Your task to perform on an android device: Go to ESPN.com Image 0: 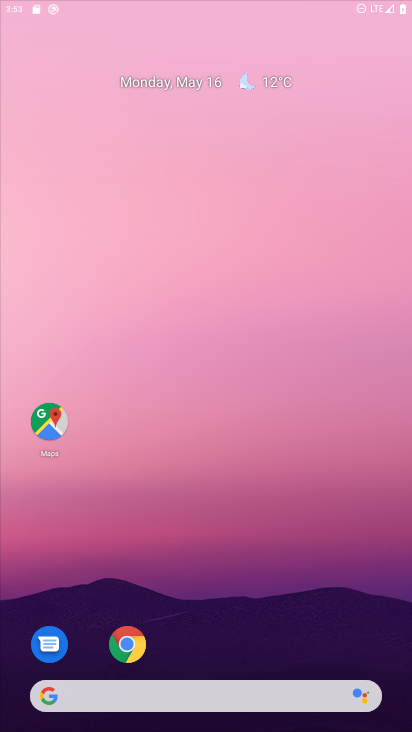
Step 0: drag from (261, 603) to (165, 26)
Your task to perform on an android device: Go to ESPN.com Image 1: 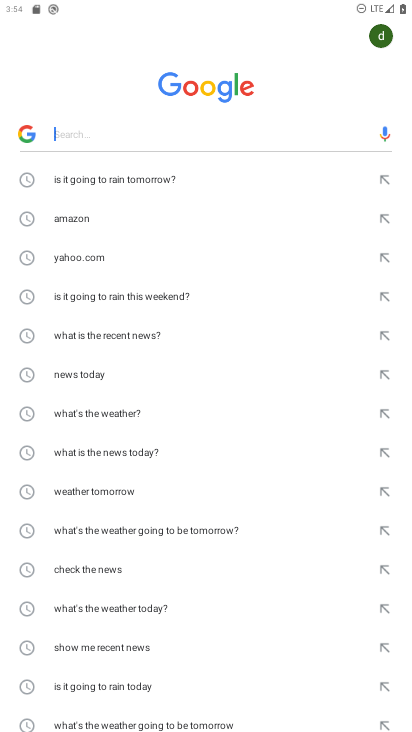
Step 1: press home button
Your task to perform on an android device: Go to ESPN.com Image 2: 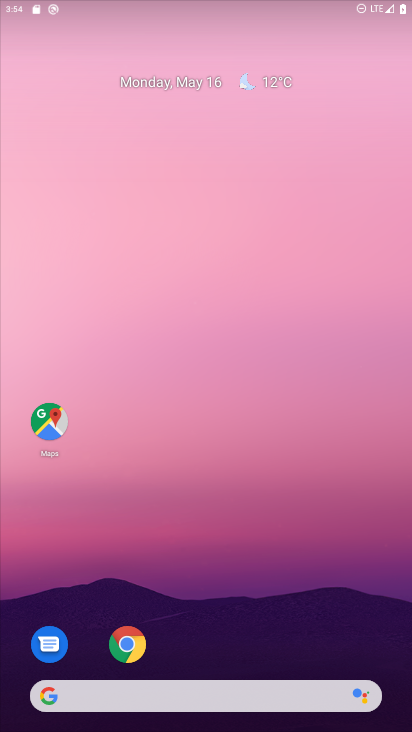
Step 2: drag from (255, 571) to (160, 43)
Your task to perform on an android device: Go to ESPN.com Image 3: 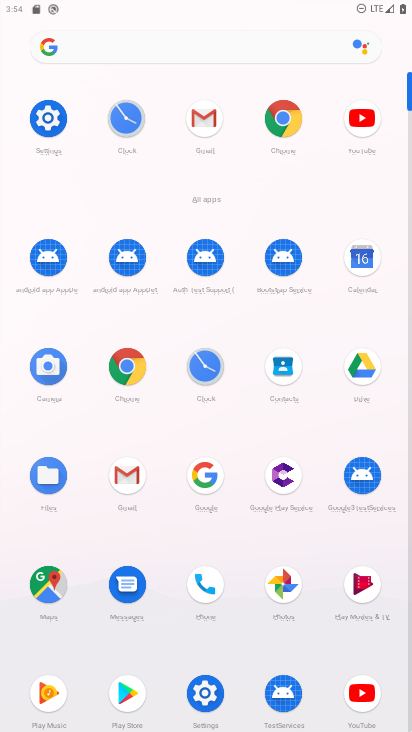
Step 3: click (128, 365)
Your task to perform on an android device: Go to ESPN.com Image 4: 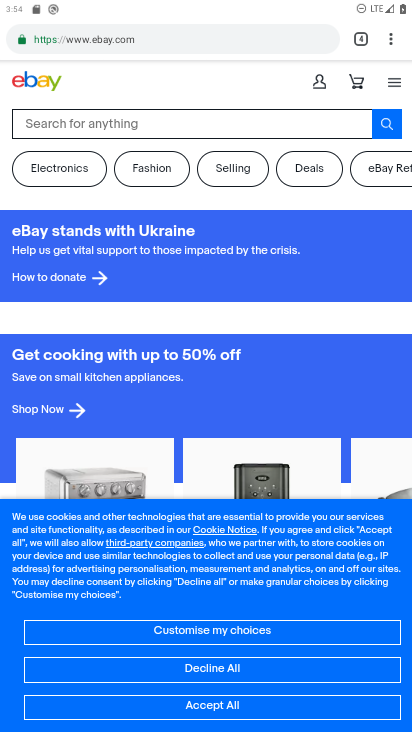
Step 4: click (359, 35)
Your task to perform on an android device: Go to ESPN.com Image 5: 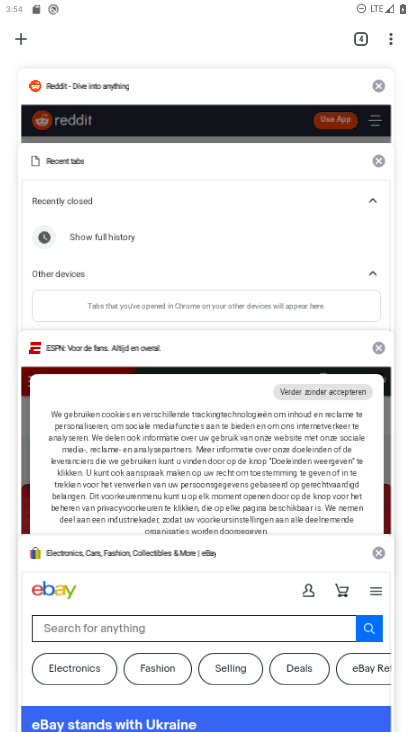
Step 5: click (148, 353)
Your task to perform on an android device: Go to ESPN.com Image 6: 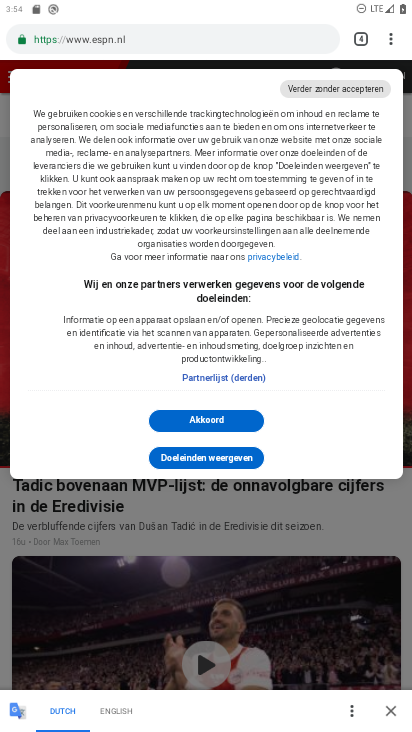
Step 6: task complete